Your task to perform on an android device: turn on showing notifications on the lock screen Image 0: 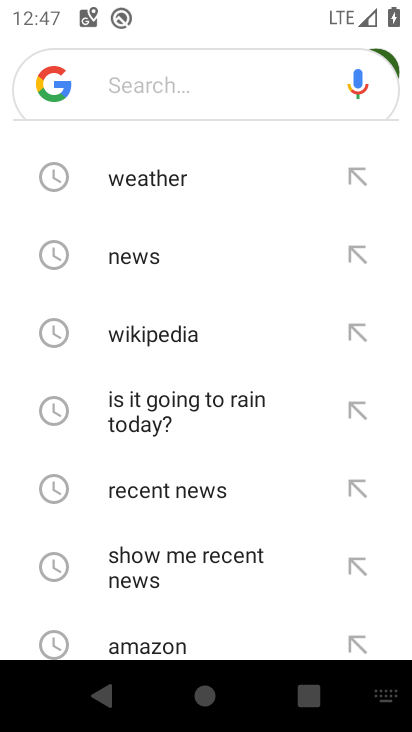
Step 0: press back button
Your task to perform on an android device: turn on showing notifications on the lock screen Image 1: 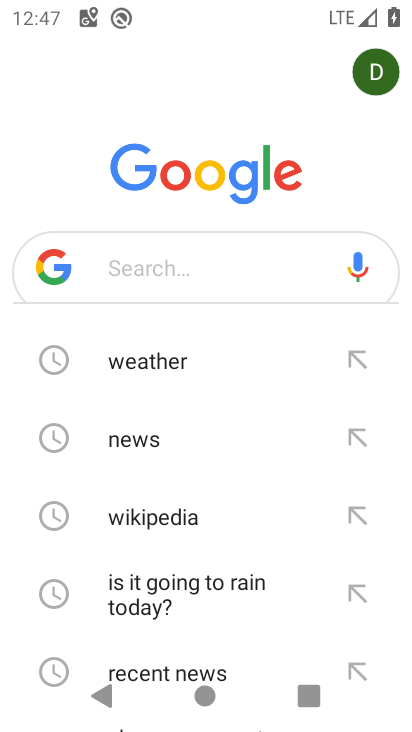
Step 1: press home button
Your task to perform on an android device: turn on showing notifications on the lock screen Image 2: 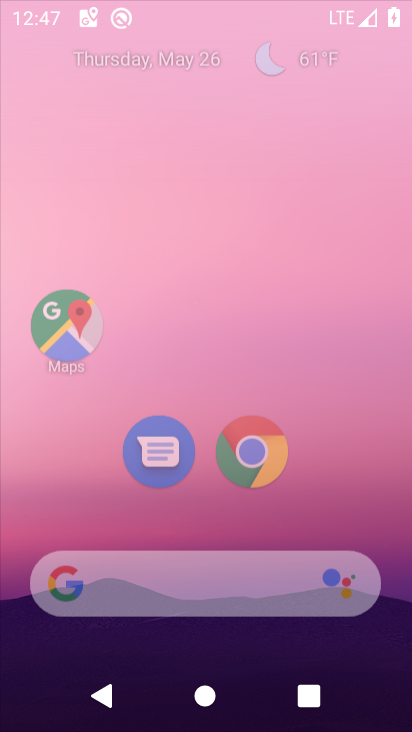
Step 2: press home button
Your task to perform on an android device: turn on showing notifications on the lock screen Image 3: 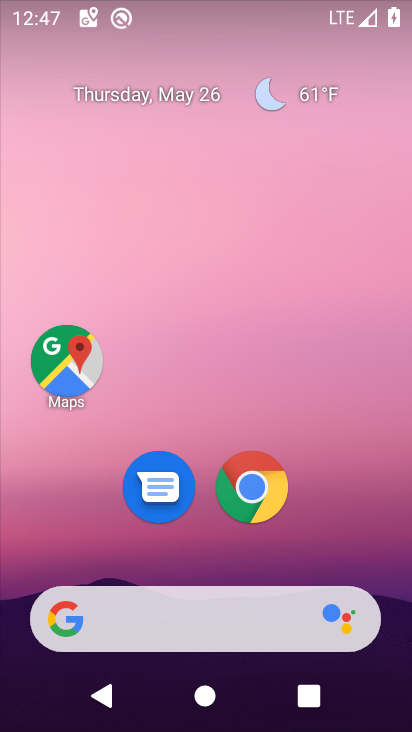
Step 3: drag from (272, 657) to (160, 103)
Your task to perform on an android device: turn on showing notifications on the lock screen Image 4: 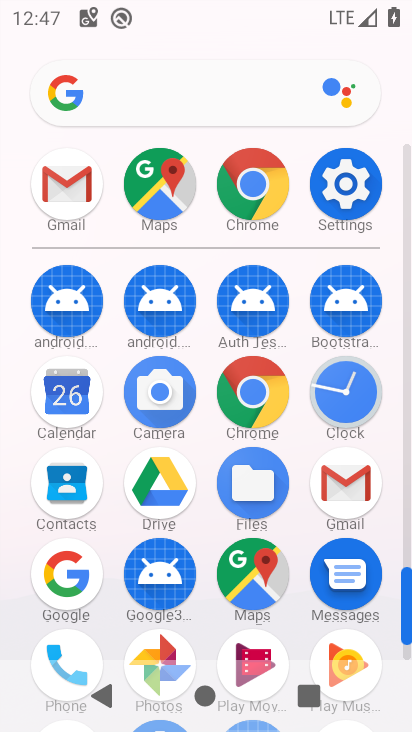
Step 4: click (339, 185)
Your task to perform on an android device: turn on showing notifications on the lock screen Image 5: 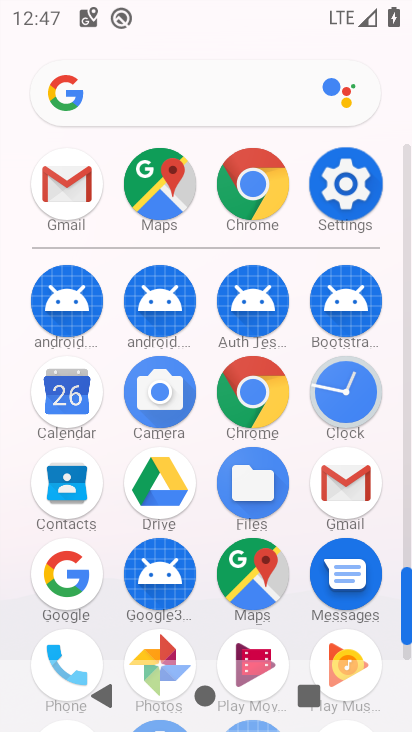
Step 5: click (339, 185)
Your task to perform on an android device: turn on showing notifications on the lock screen Image 6: 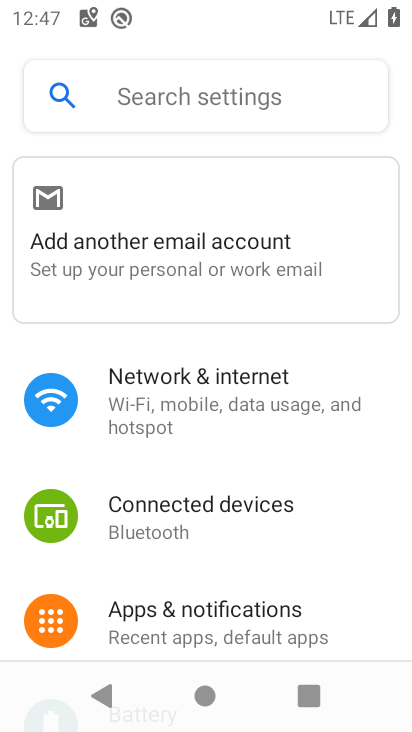
Step 6: click (176, 608)
Your task to perform on an android device: turn on showing notifications on the lock screen Image 7: 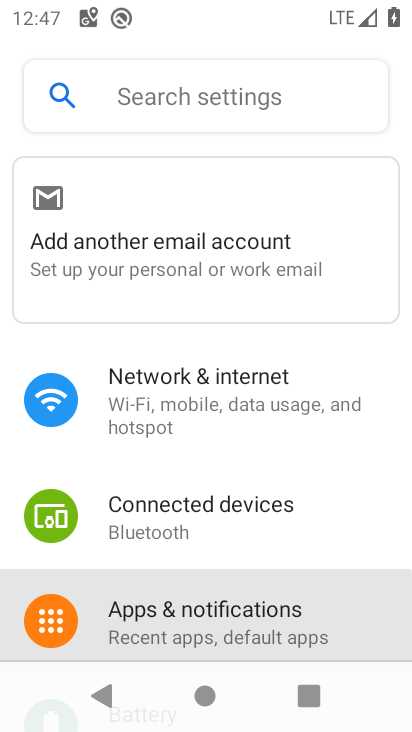
Step 7: click (182, 608)
Your task to perform on an android device: turn on showing notifications on the lock screen Image 8: 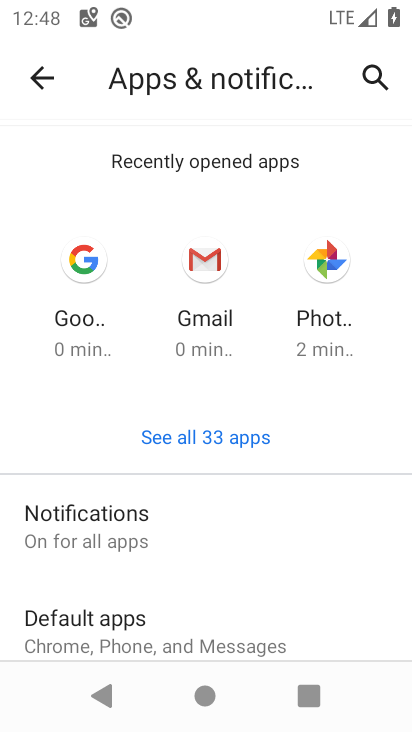
Step 8: drag from (230, 560) to (175, 246)
Your task to perform on an android device: turn on showing notifications on the lock screen Image 9: 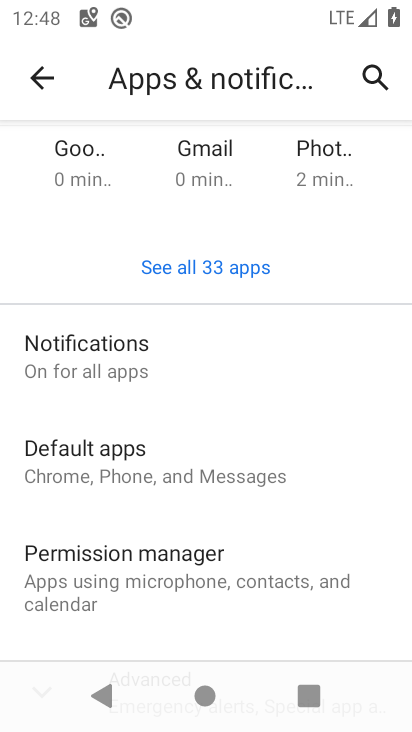
Step 9: click (212, 268)
Your task to perform on an android device: turn on showing notifications on the lock screen Image 10: 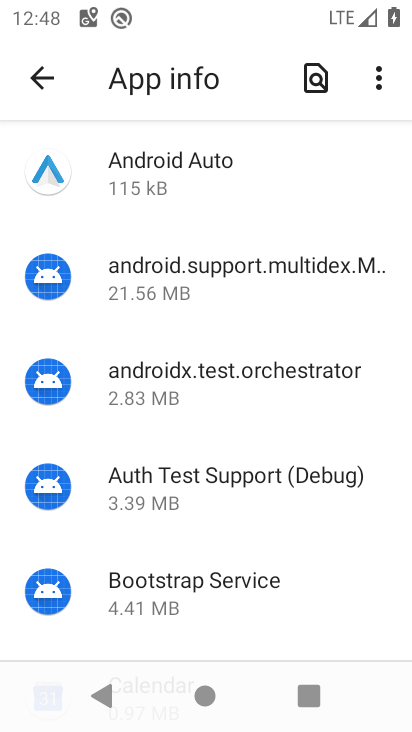
Step 10: click (196, 334)
Your task to perform on an android device: turn on showing notifications on the lock screen Image 11: 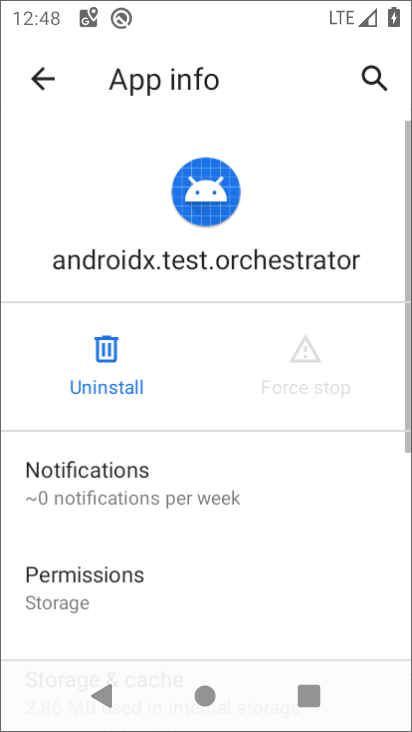
Step 11: drag from (205, 489) to (195, 305)
Your task to perform on an android device: turn on showing notifications on the lock screen Image 12: 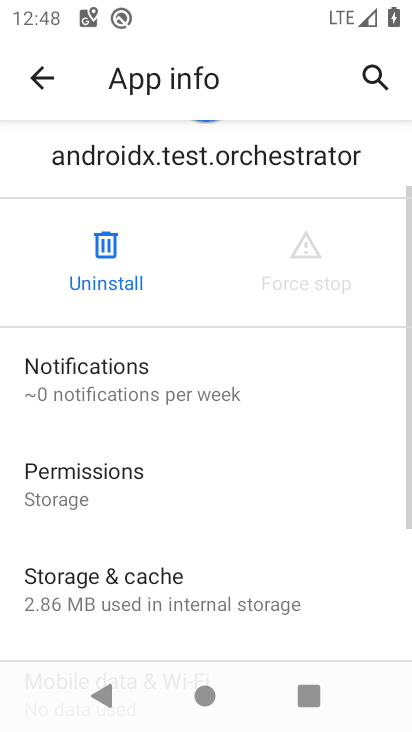
Step 12: drag from (203, 529) to (205, 318)
Your task to perform on an android device: turn on showing notifications on the lock screen Image 13: 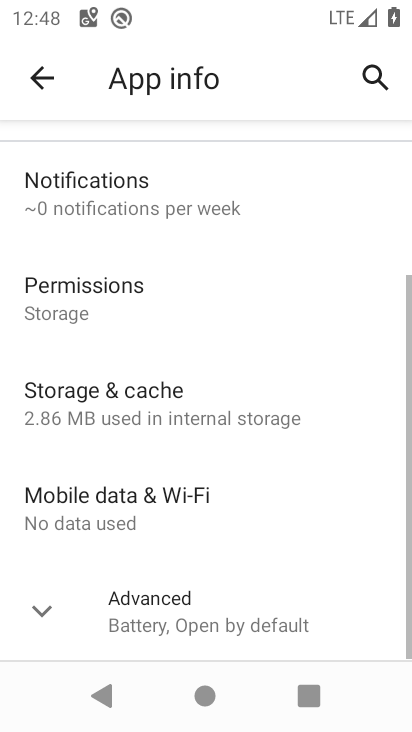
Step 13: drag from (236, 336) to (233, 287)
Your task to perform on an android device: turn on showing notifications on the lock screen Image 14: 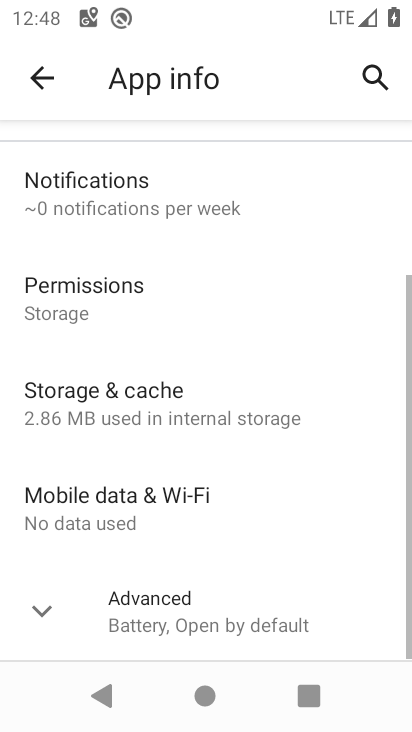
Step 14: drag from (207, 523) to (250, 202)
Your task to perform on an android device: turn on showing notifications on the lock screen Image 15: 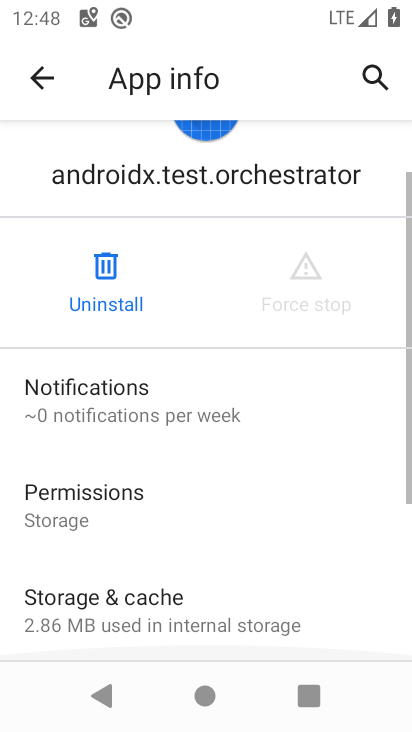
Step 15: drag from (291, 597) to (292, 168)
Your task to perform on an android device: turn on showing notifications on the lock screen Image 16: 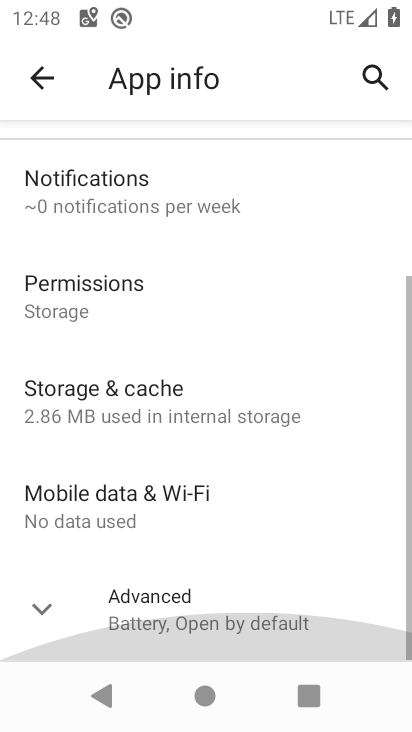
Step 16: drag from (261, 459) to (258, 238)
Your task to perform on an android device: turn on showing notifications on the lock screen Image 17: 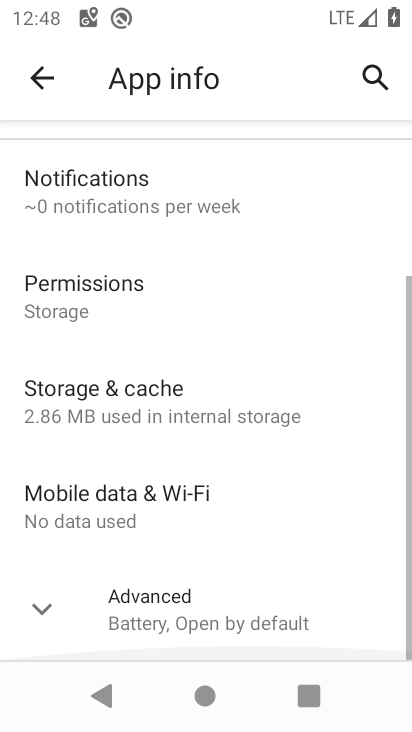
Step 17: drag from (263, 357) to (263, 182)
Your task to perform on an android device: turn on showing notifications on the lock screen Image 18: 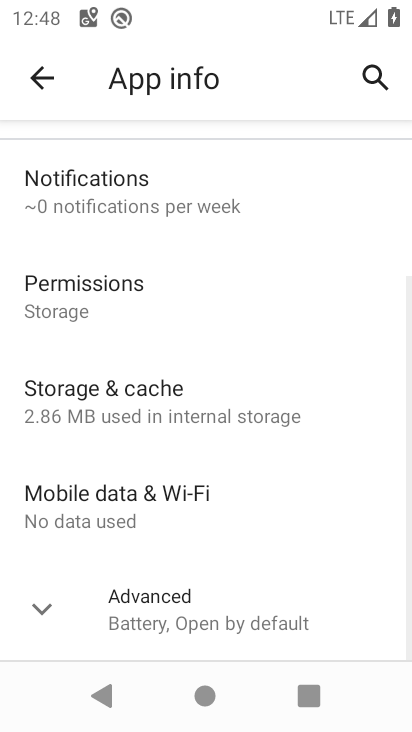
Step 18: drag from (241, 538) to (220, 202)
Your task to perform on an android device: turn on showing notifications on the lock screen Image 19: 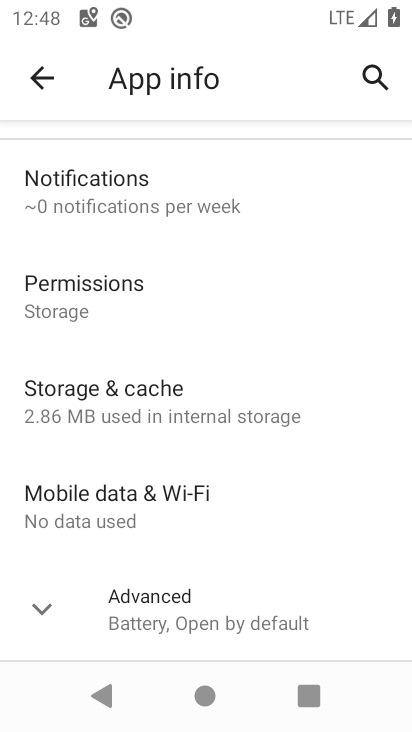
Step 19: click (100, 194)
Your task to perform on an android device: turn on showing notifications on the lock screen Image 20: 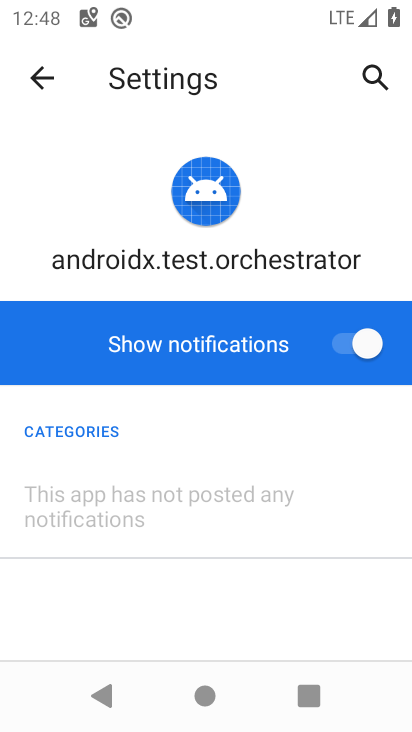
Step 20: task complete